Your task to perform on an android device: Show the shopping cart on walmart.com. Add "dell xps" to the cart on walmart.com, then select checkout. Image 0: 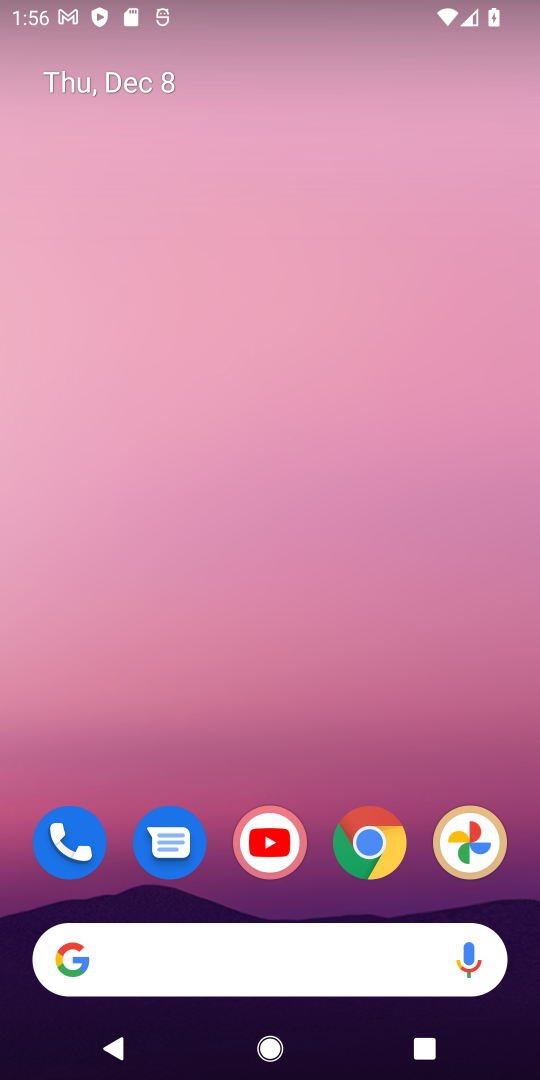
Step 0: drag from (272, 934) to (296, 13)
Your task to perform on an android device: Show the shopping cart on walmart.com. Add "dell xps" to the cart on walmart.com, then select checkout. Image 1: 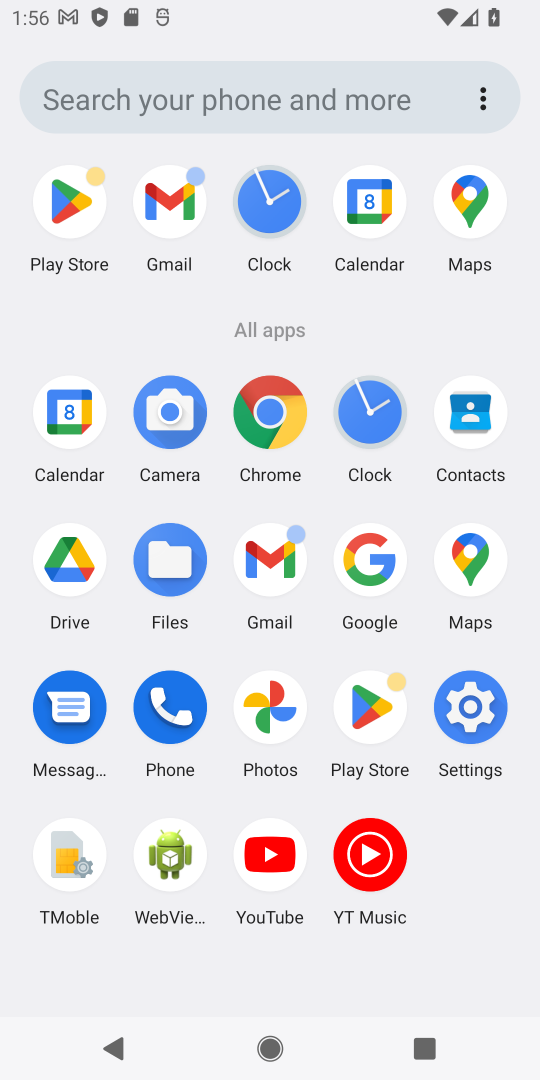
Step 1: click (366, 555)
Your task to perform on an android device: Show the shopping cart on walmart.com. Add "dell xps" to the cart on walmart.com, then select checkout. Image 2: 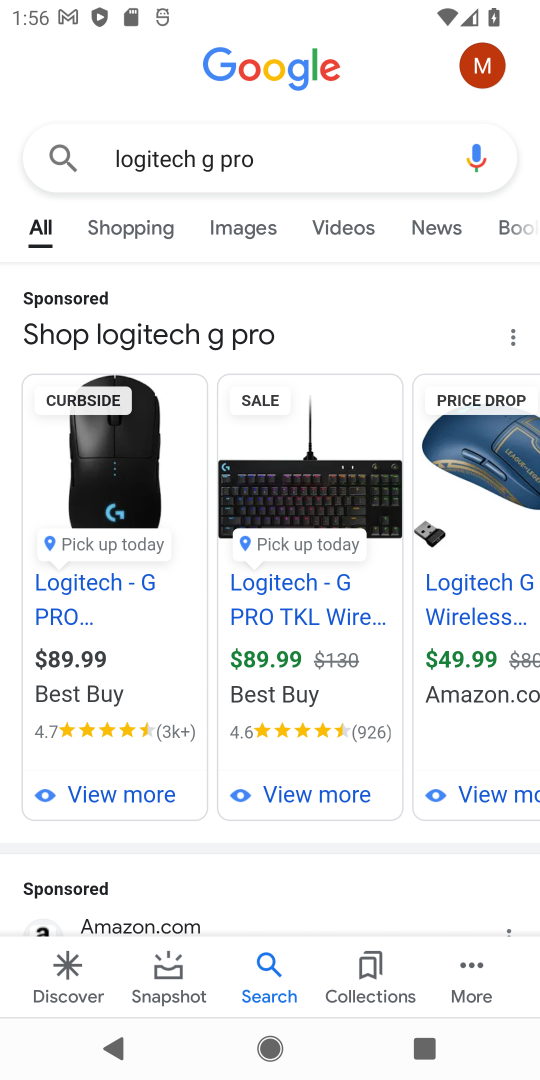
Step 2: click (141, 154)
Your task to perform on an android device: Show the shopping cart on walmart.com. Add "dell xps" to the cart on walmart.com, then select checkout. Image 3: 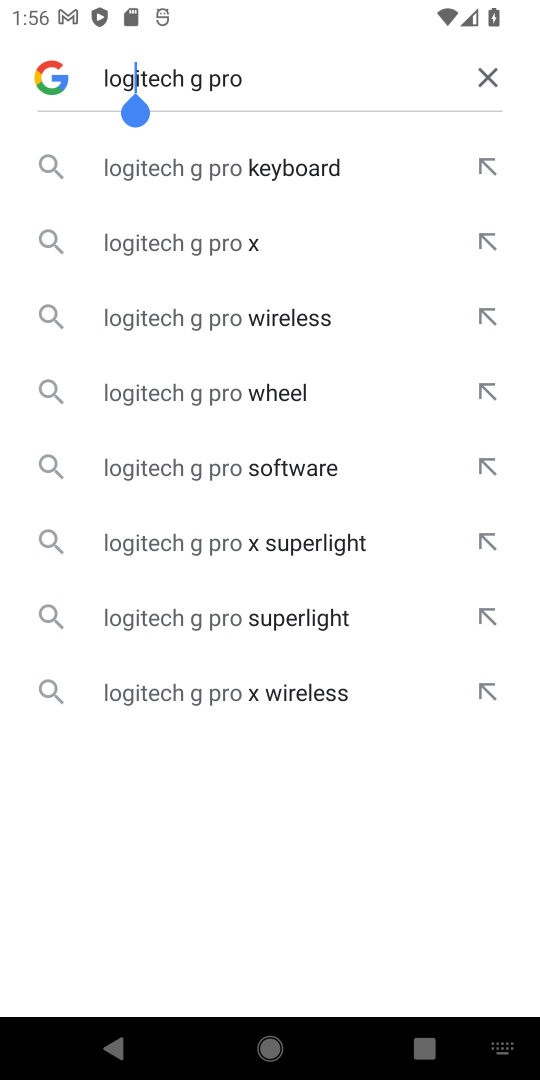
Step 3: click (497, 73)
Your task to perform on an android device: Show the shopping cart on walmart.com. Add "dell xps" to the cart on walmart.com, then select checkout. Image 4: 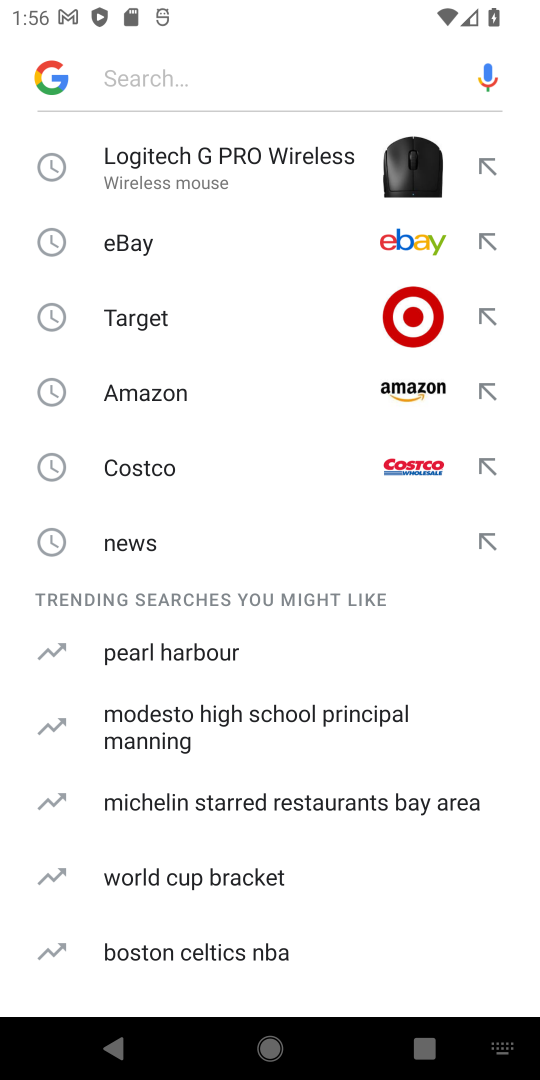
Step 4: type "walmart.com"
Your task to perform on an android device: Show the shopping cart on walmart.com. Add "dell xps" to the cart on walmart.com, then select checkout. Image 5: 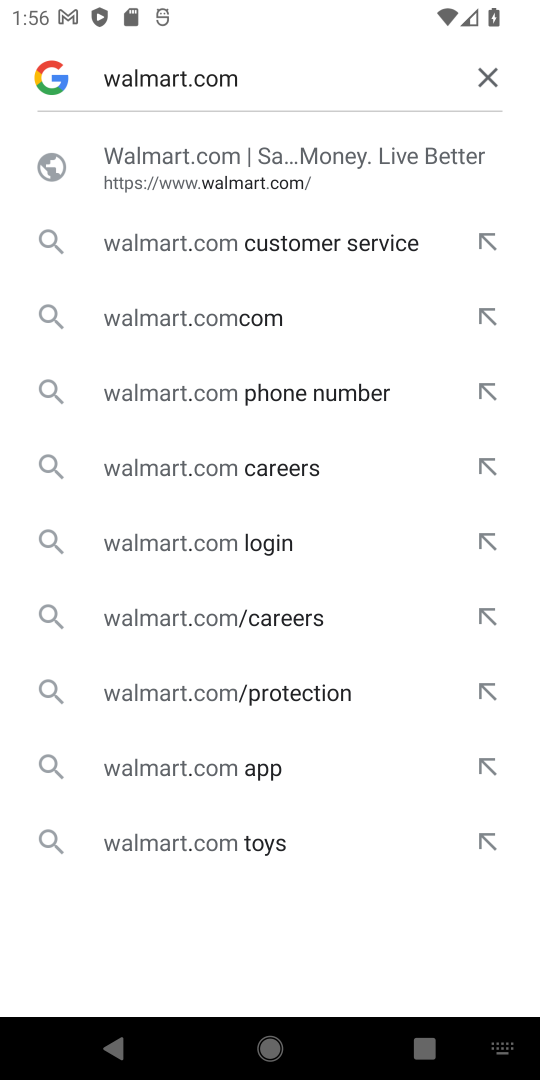
Step 5: click (198, 165)
Your task to perform on an android device: Show the shopping cart on walmart.com. Add "dell xps" to the cart on walmart.com, then select checkout. Image 6: 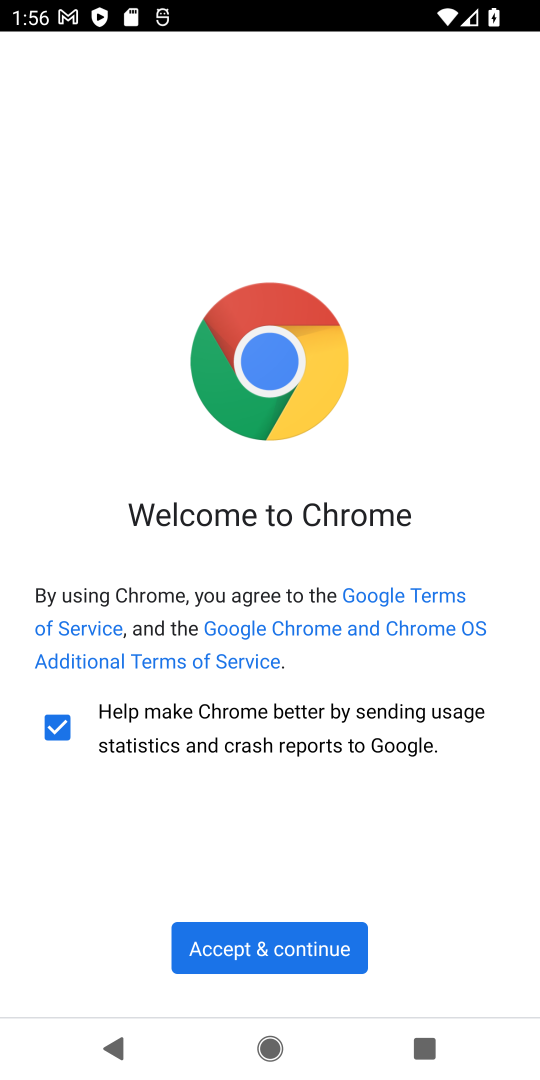
Step 6: click (263, 960)
Your task to perform on an android device: Show the shopping cart on walmart.com. Add "dell xps" to the cart on walmart.com, then select checkout. Image 7: 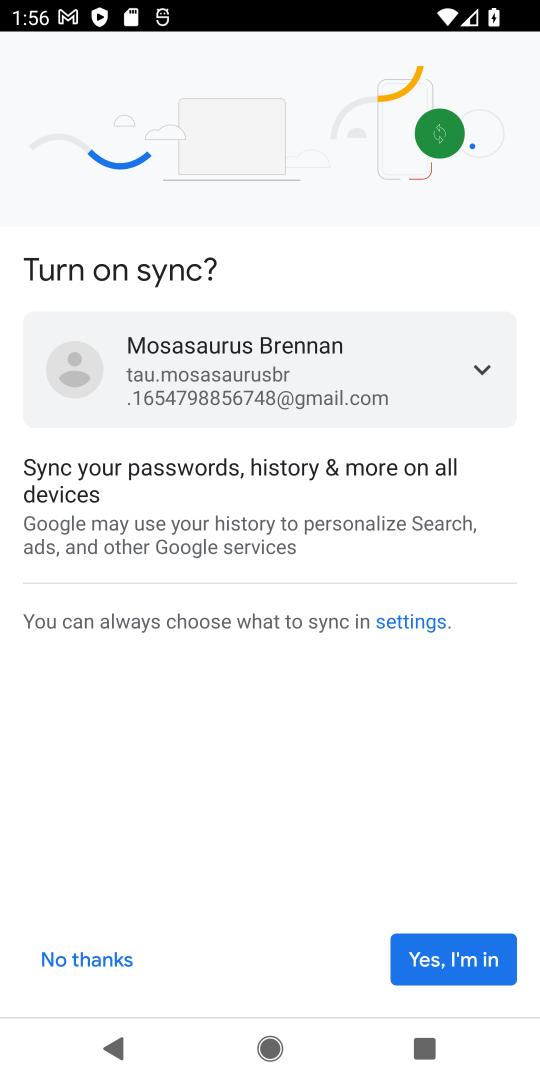
Step 7: click (496, 957)
Your task to perform on an android device: Show the shopping cart on walmart.com. Add "dell xps" to the cart on walmart.com, then select checkout. Image 8: 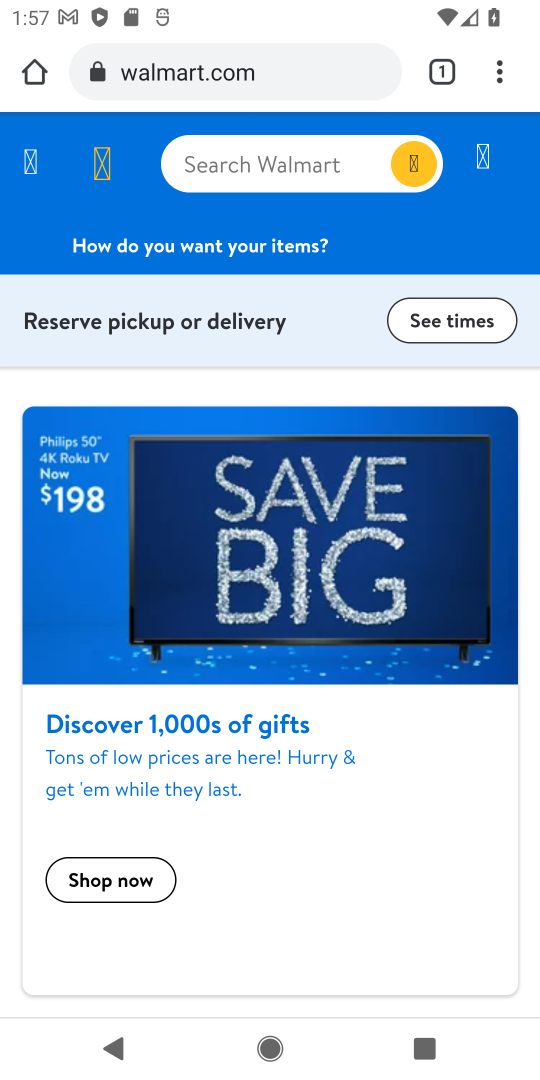
Step 8: click (273, 152)
Your task to perform on an android device: Show the shopping cart on walmart.com. Add "dell xps" to the cart on walmart.com, then select checkout. Image 9: 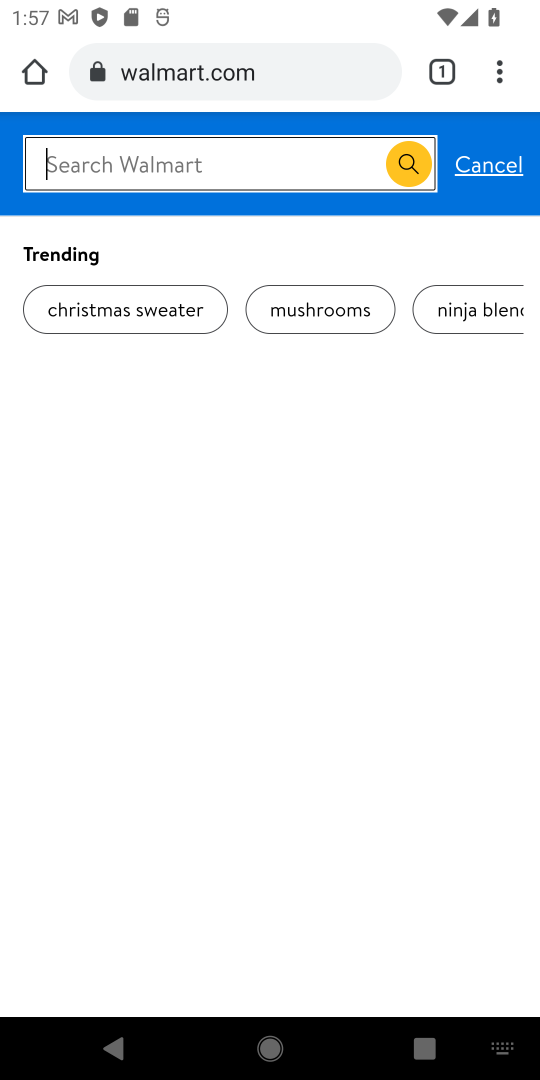
Step 9: type "dell xps"
Your task to perform on an android device: Show the shopping cart on walmart.com. Add "dell xps" to the cart on walmart.com, then select checkout. Image 10: 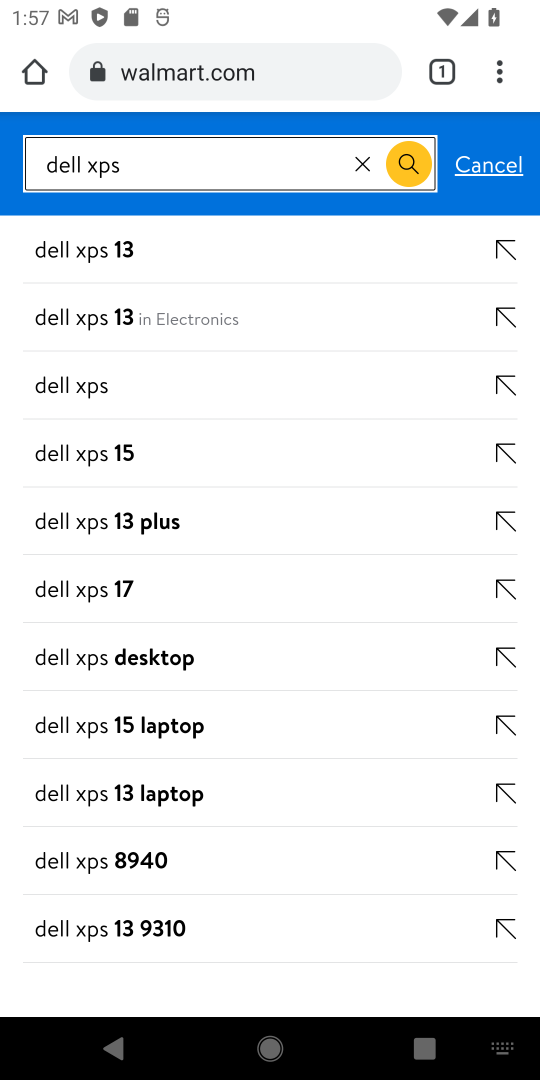
Step 10: click (100, 395)
Your task to perform on an android device: Show the shopping cart on walmart.com. Add "dell xps" to the cart on walmart.com, then select checkout. Image 11: 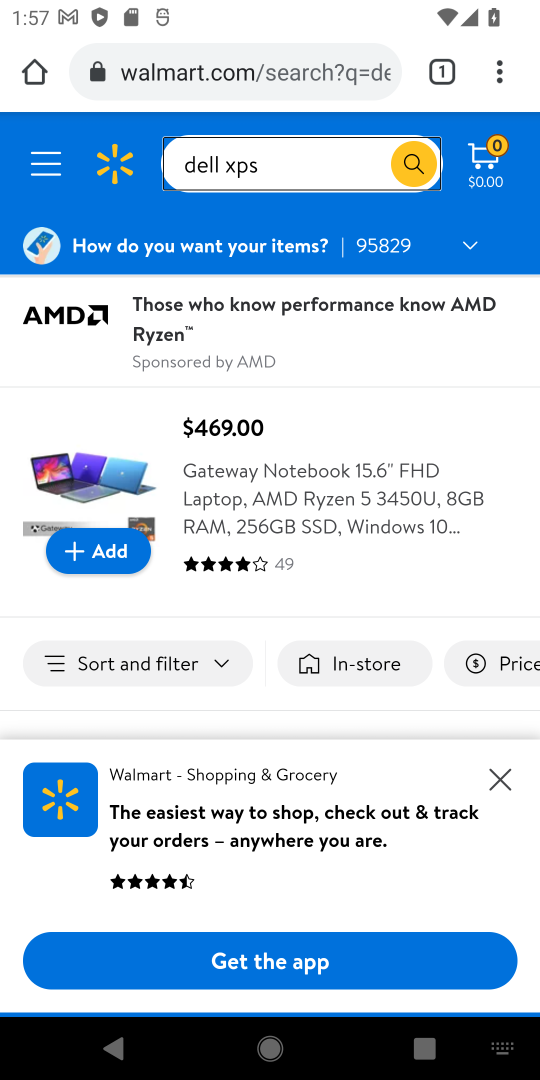
Step 11: drag from (311, 430) to (329, 783)
Your task to perform on an android device: Show the shopping cart on walmart.com. Add "dell xps" to the cart on walmart.com, then select checkout. Image 12: 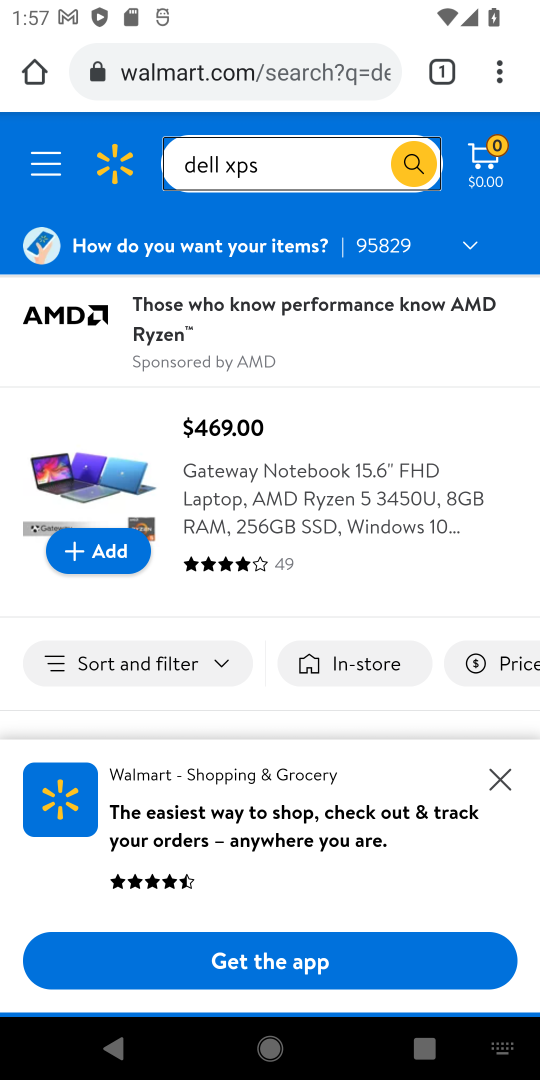
Step 12: drag from (325, 777) to (288, 330)
Your task to perform on an android device: Show the shopping cart on walmart.com. Add "dell xps" to the cart on walmart.com, then select checkout. Image 13: 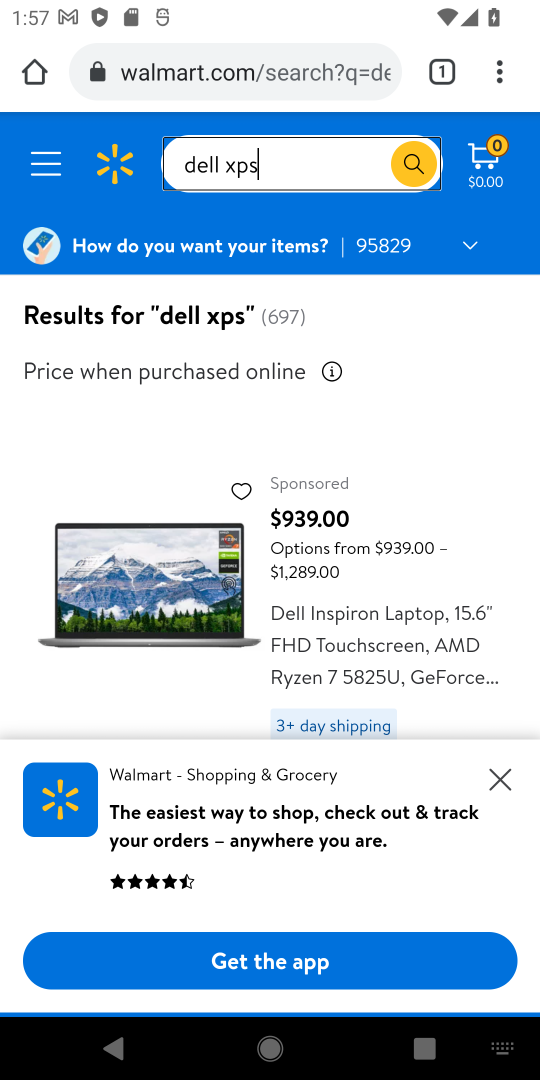
Step 13: drag from (309, 686) to (335, 360)
Your task to perform on an android device: Show the shopping cart on walmart.com. Add "dell xps" to the cart on walmart.com, then select checkout. Image 14: 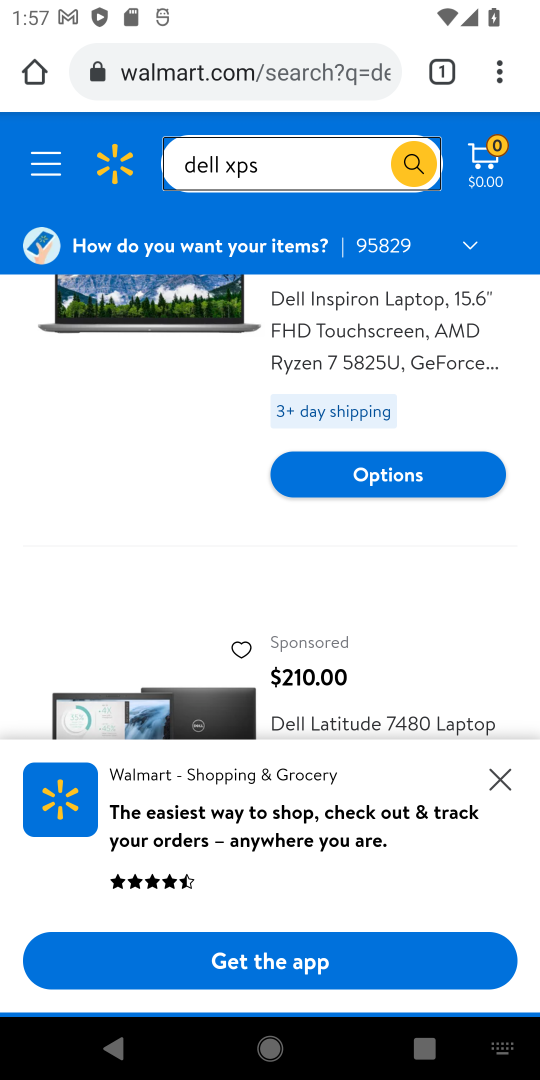
Step 14: drag from (359, 631) to (344, 390)
Your task to perform on an android device: Show the shopping cart on walmart.com. Add "dell xps" to the cart on walmart.com, then select checkout. Image 15: 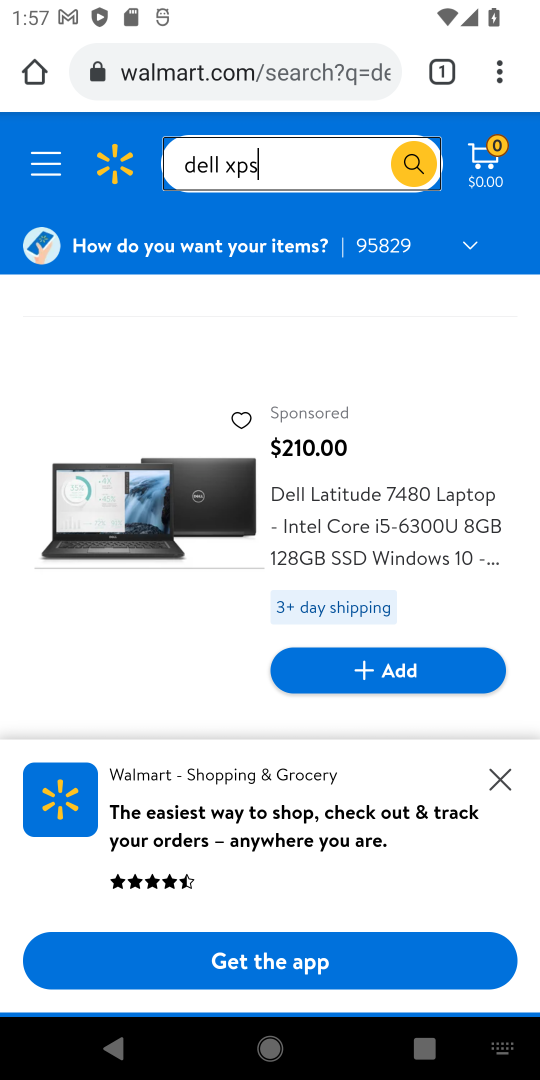
Step 15: click (410, 667)
Your task to perform on an android device: Show the shopping cart on walmart.com. Add "dell xps" to the cart on walmart.com, then select checkout. Image 16: 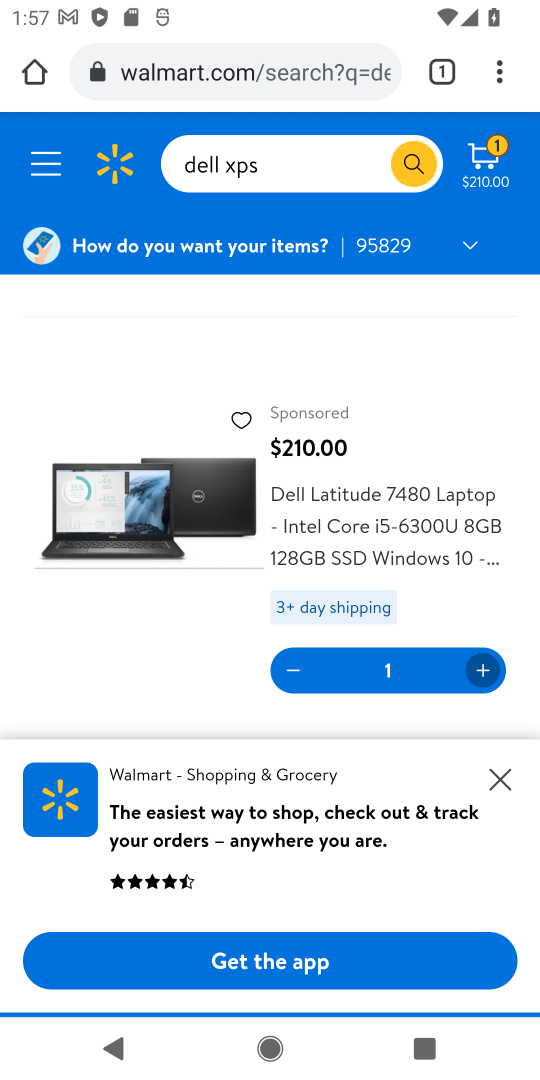
Step 16: click (499, 137)
Your task to perform on an android device: Show the shopping cart on walmart.com. Add "dell xps" to the cart on walmart.com, then select checkout. Image 17: 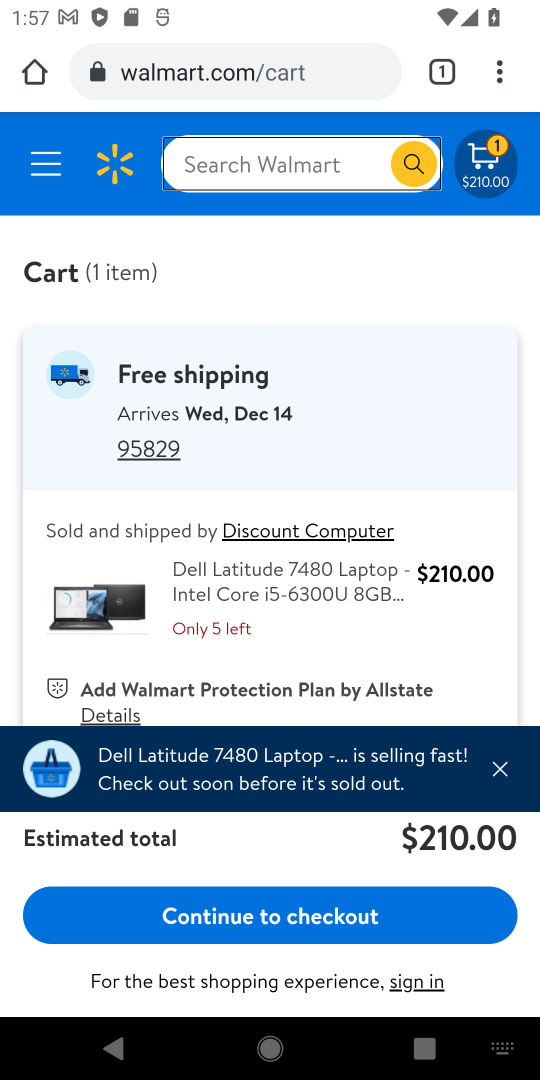
Step 17: click (269, 911)
Your task to perform on an android device: Show the shopping cart on walmart.com. Add "dell xps" to the cart on walmart.com, then select checkout. Image 18: 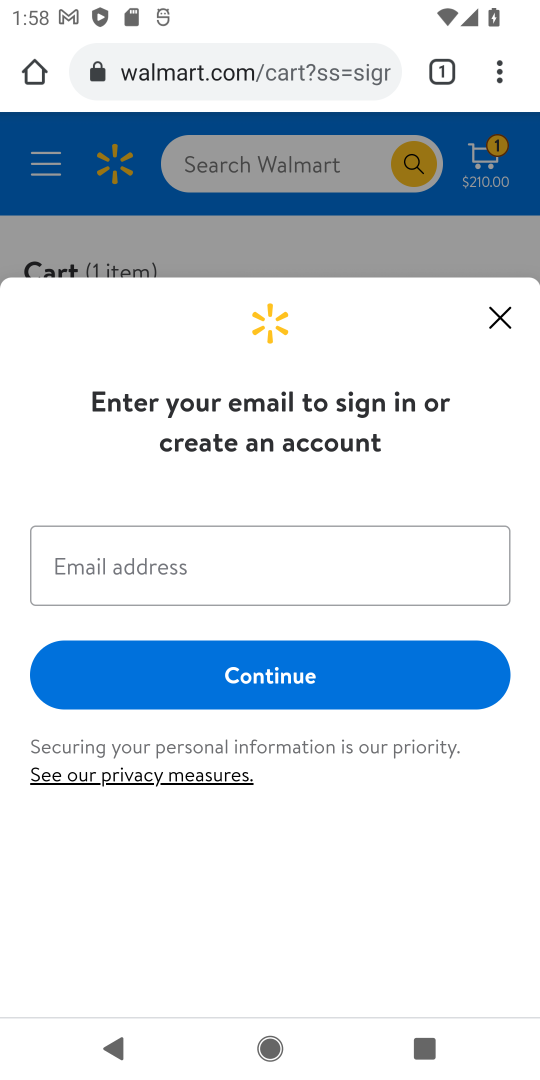
Step 18: click (502, 311)
Your task to perform on an android device: Show the shopping cart on walmart.com. Add "dell xps" to the cart on walmart.com, then select checkout. Image 19: 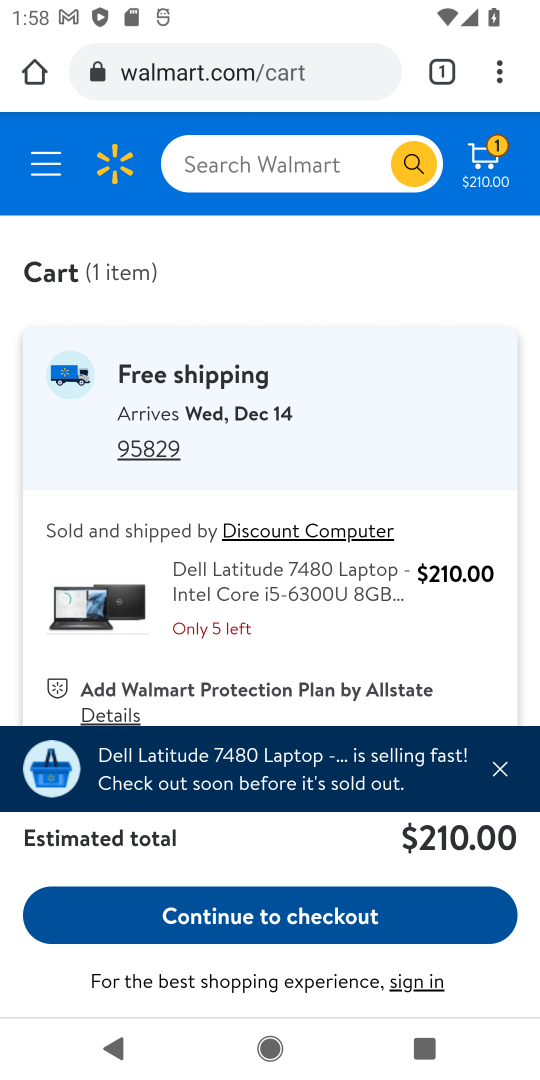
Step 19: task complete